Your task to perform on an android device: open the mobile data screen to see how much data has been used Image 0: 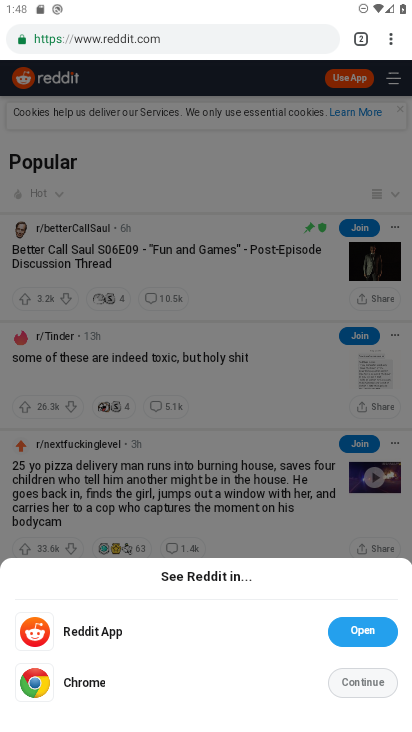
Step 0: press home button
Your task to perform on an android device: open the mobile data screen to see how much data has been used Image 1: 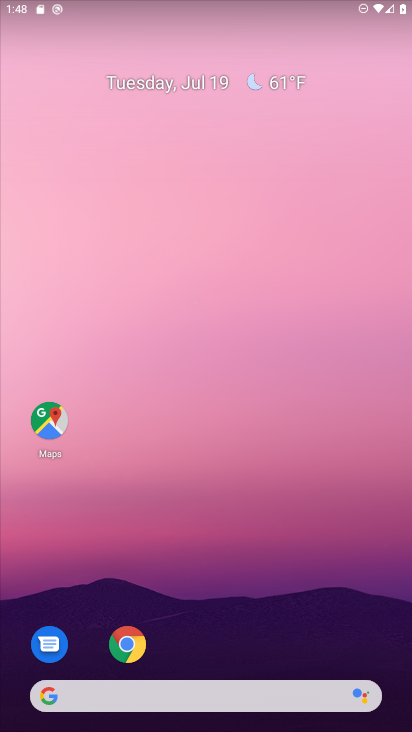
Step 1: drag from (174, 676) to (186, 86)
Your task to perform on an android device: open the mobile data screen to see how much data has been used Image 2: 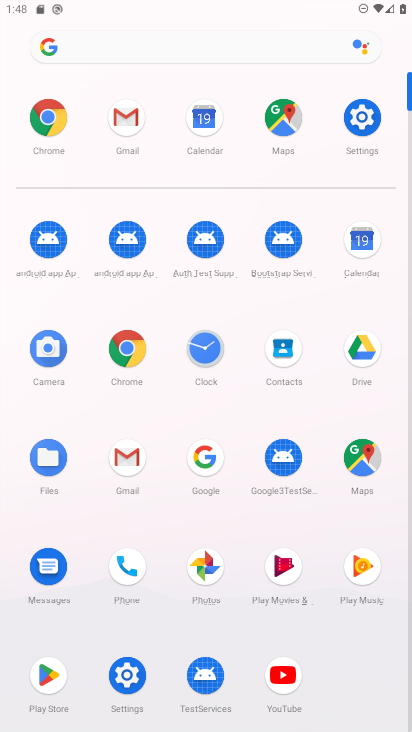
Step 2: click (364, 118)
Your task to perform on an android device: open the mobile data screen to see how much data has been used Image 3: 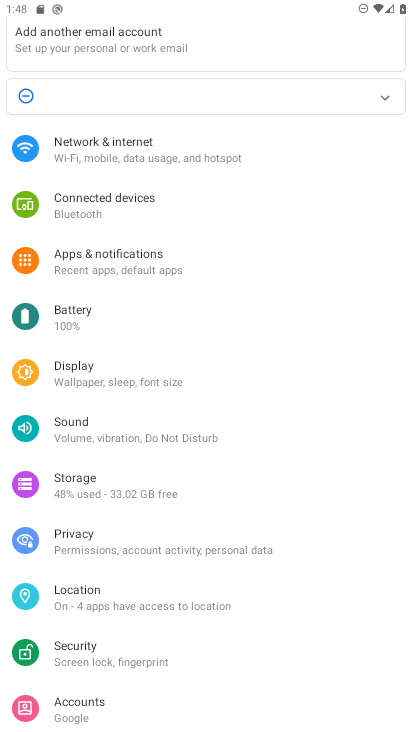
Step 3: click (114, 152)
Your task to perform on an android device: open the mobile data screen to see how much data has been used Image 4: 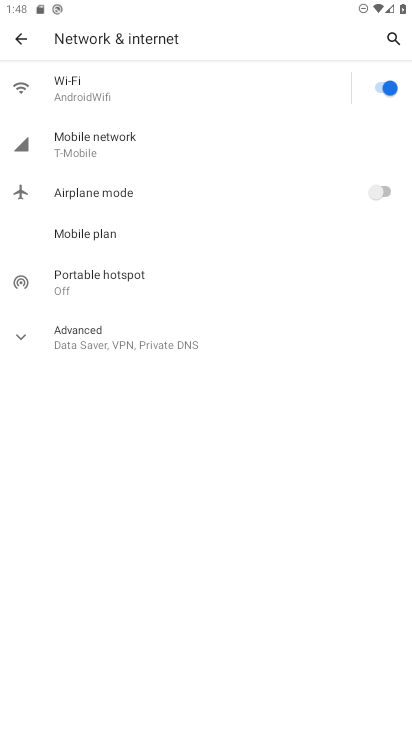
Step 4: click (90, 134)
Your task to perform on an android device: open the mobile data screen to see how much data has been used Image 5: 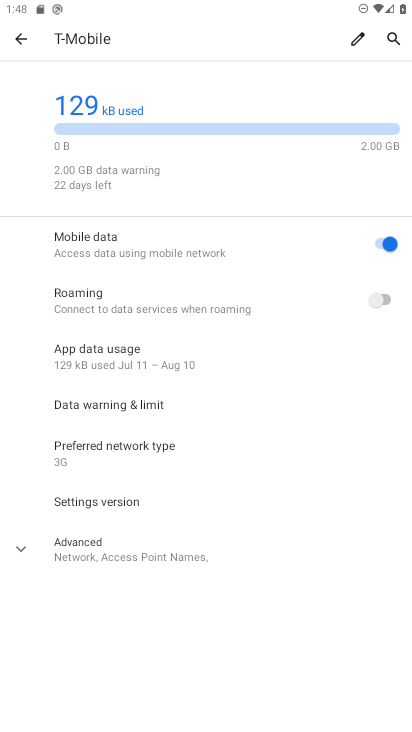
Step 5: task complete